Your task to perform on an android device: change your default location settings in chrome Image 0: 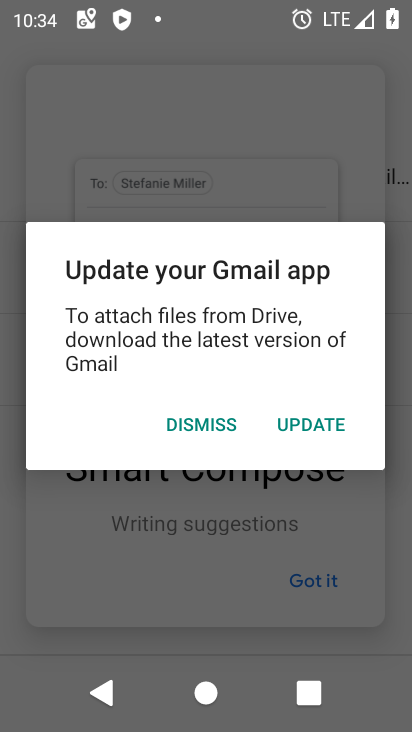
Step 0: press home button
Your task to perform on an android device: change your default location settings in chrome Image 1: 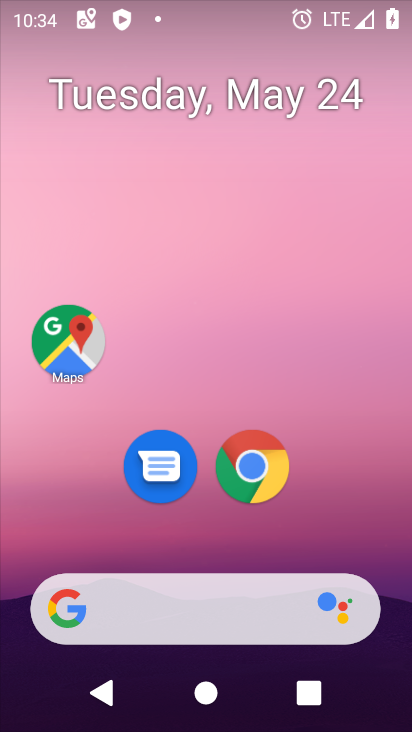
Step 1: drag from (391, 546) to (388, 242)
Your task to perform on an android device: change your default location settings in chrome Image 2: 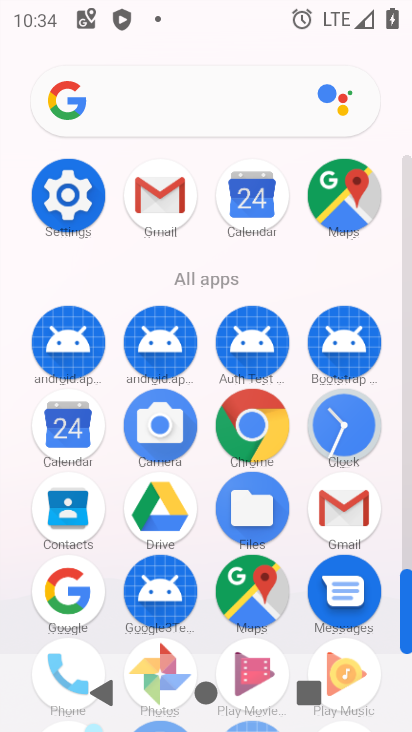
Step 2: click (267, 438)
Your task to perform on an android device: change your default location settings in chrome Image 3: 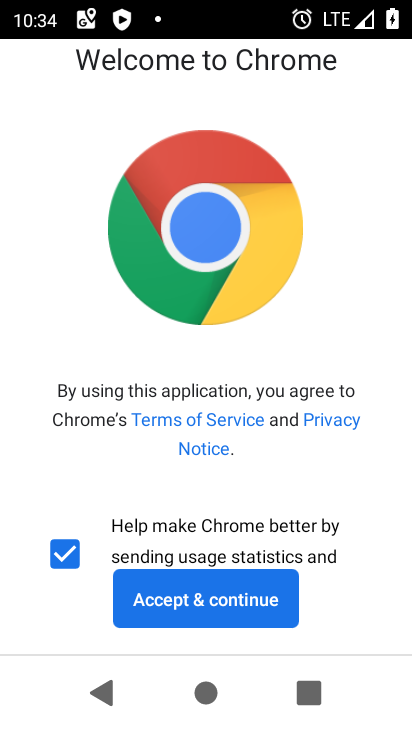
Step 3: click (223, 598)
Your task to perform on an android device: change your default location settings in chrome Image 4: 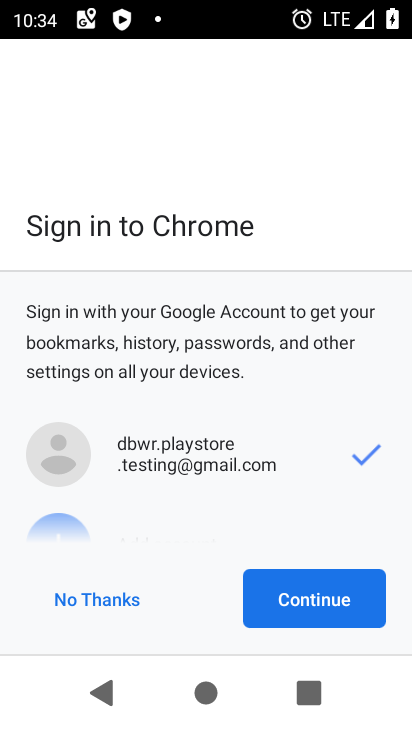
Step 4: click (277, 604)
Your task to perform on an android device: change your default location settings in chrome Image 5: 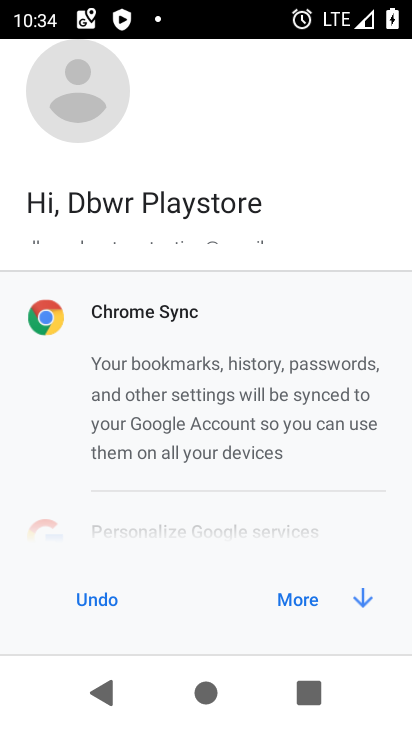
Step 5: click (301, 604)
Your task to perform on an android device: change your default location settings in chrome Image 6: 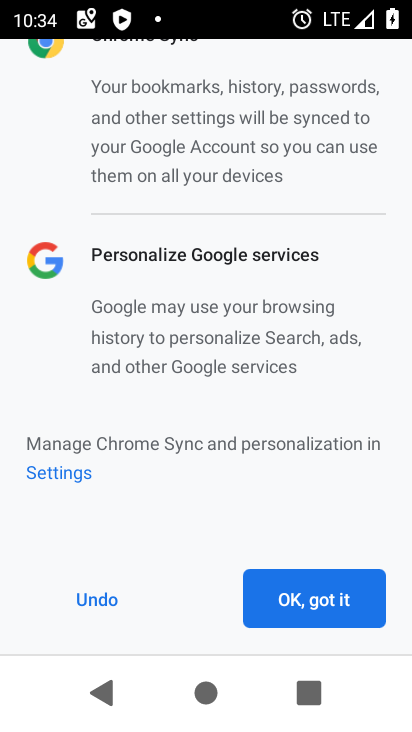
Step 6: click (301, 604)
Your task to perform on an android device: change your default location settings in chrome Image 7: 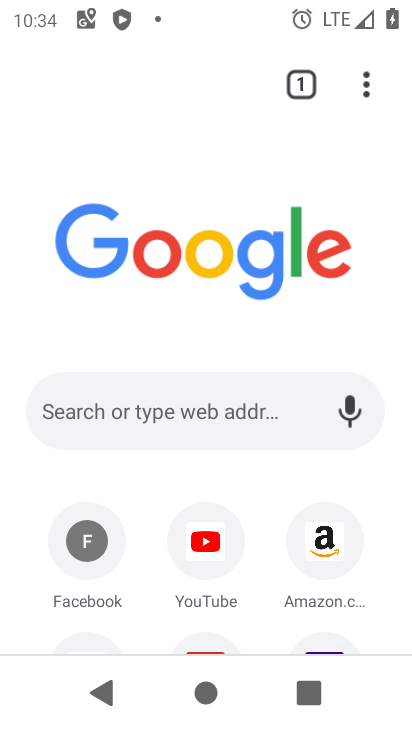
Step 7: click (365, 94)
Your task to perform on an android device: change your default location settings in chrome Image 8: 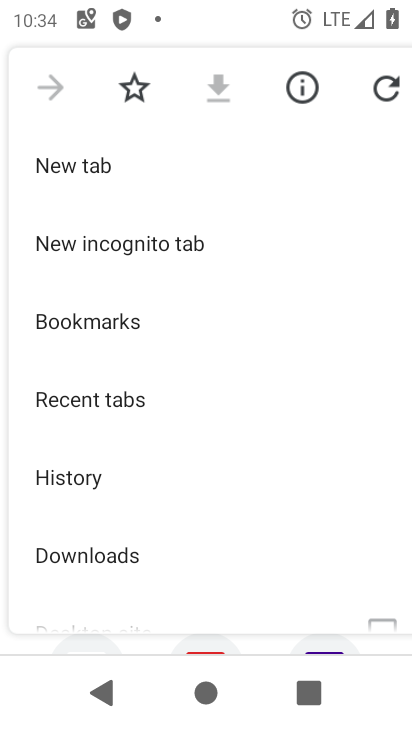
Step 8: drag from (275, 431) to (261, 367)
Your task to perform on an android device: change your default location settings in chrome Image 9: 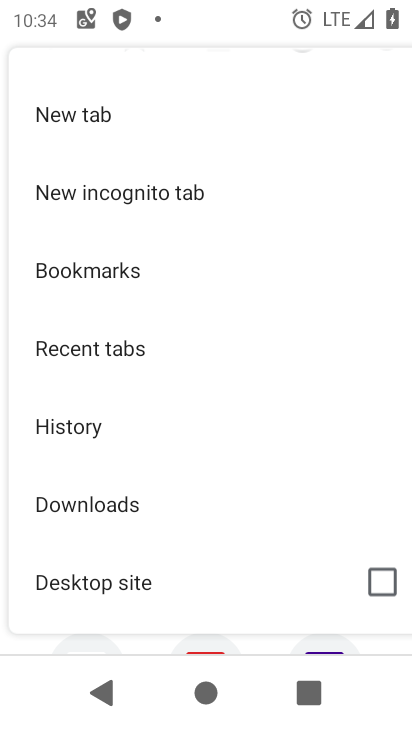
Step 9: drag from (287, 517) to (287, 435)
Your task to perform on an android device: change your default location settings in chrome Image 10: 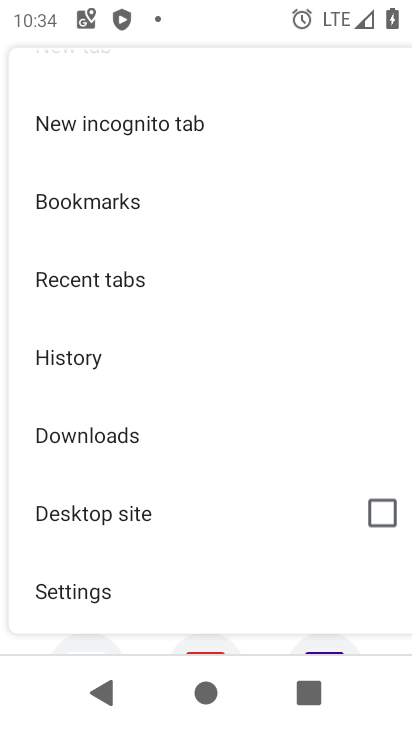
Step 10: drag from (270, 507) to (270, 430)
Your task to perform on an android device: change your default location settings in chrome Image 11: 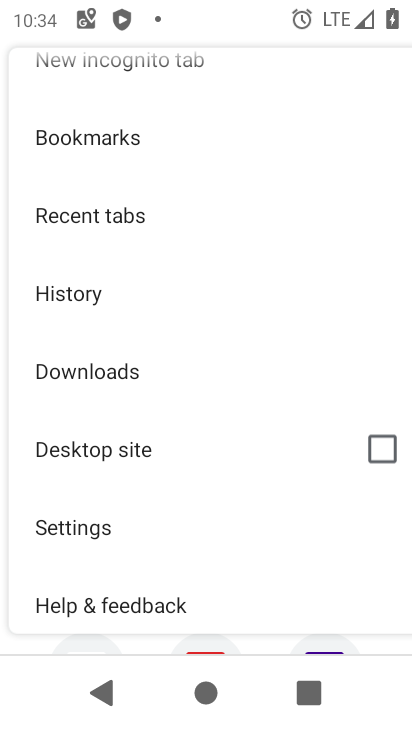
Step 11: drag from (253, 540) to (261, 409)
Your task to perform on an android device: change your default location settings in chrome Image 12: 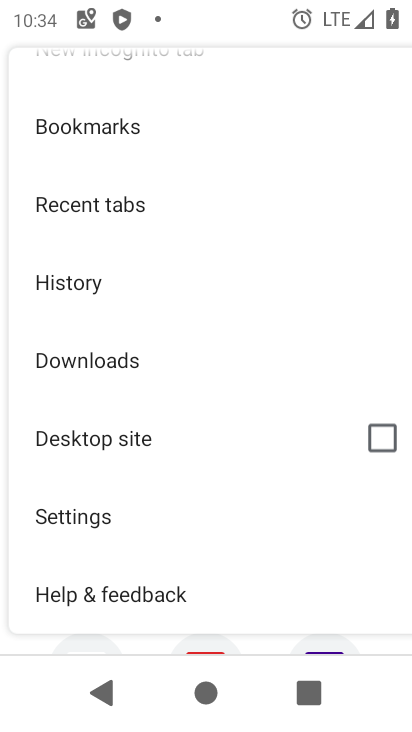
Step 12: click (131, 535)
Your task to perform on an android device: change your default location settings in chrome Image 13: 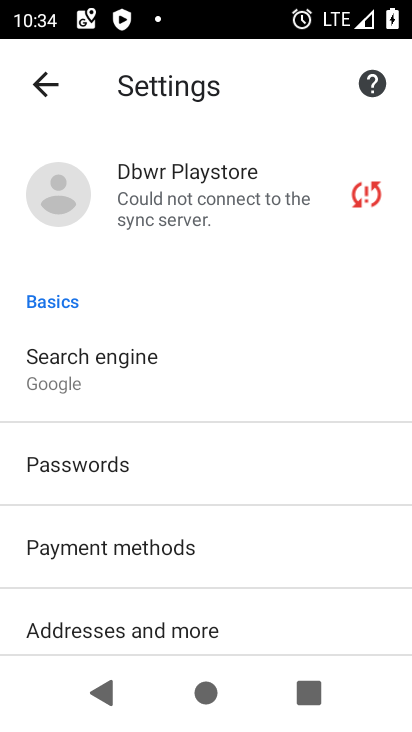
Step 13: drag from (330, 582) to (319, 498)
Your task to perform on an android device: change your default location settings in chrome Image 14: 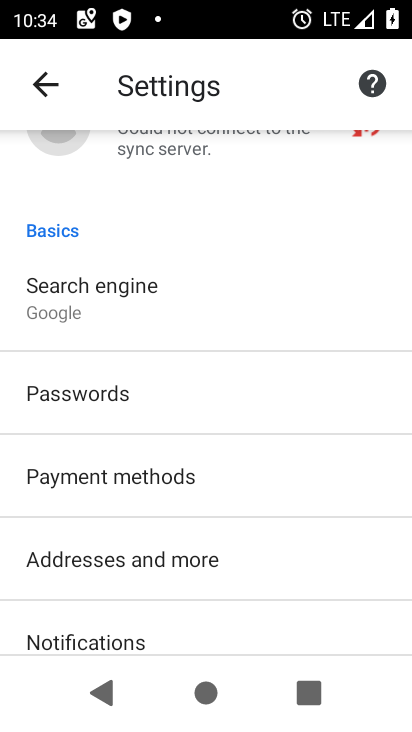
Step 14: drag from (312, 584) to (324, 503)
Your task to perform on an android device: change your default location settings in chrome Image 15: 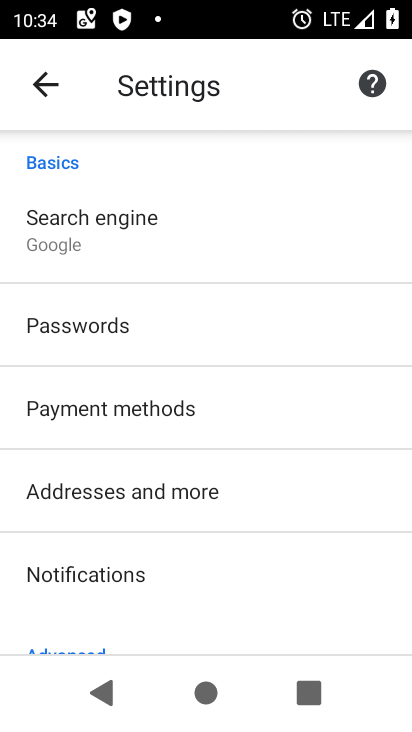
Step 15: drag from (317, 556) to (317, 469)
Your task to perform on an android device: change your default location settings in chrome Image 16: 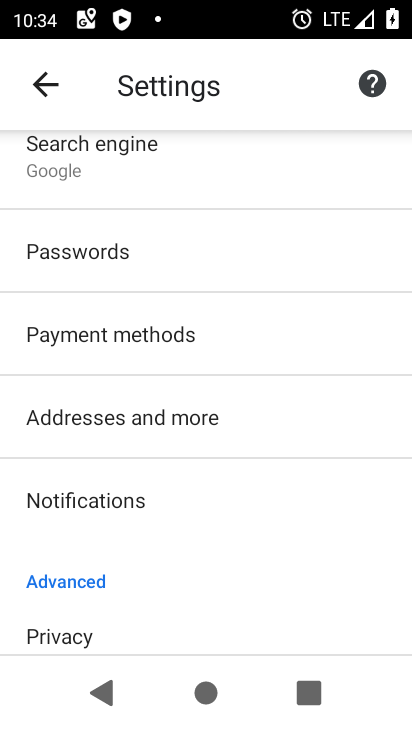
Step 16: drag from (309, 558) to (290, 470)
Your task to perform on an android device: change your default location settings in chrome Image 17: 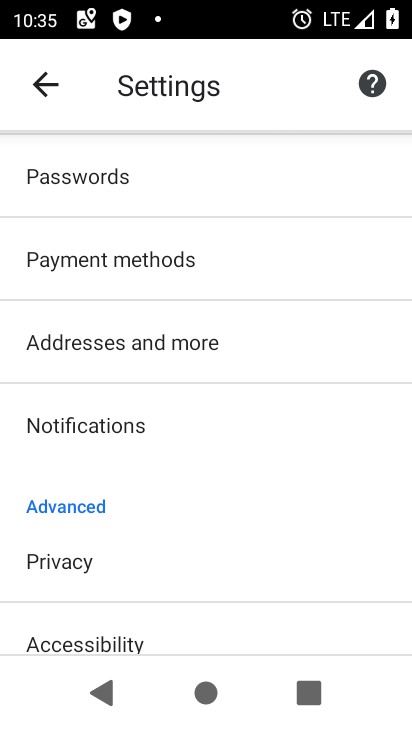
Step 17: drag from (276, 559) to (288, 460)
Your task to perform on an android device: change your default location settings in chrome Image 18: 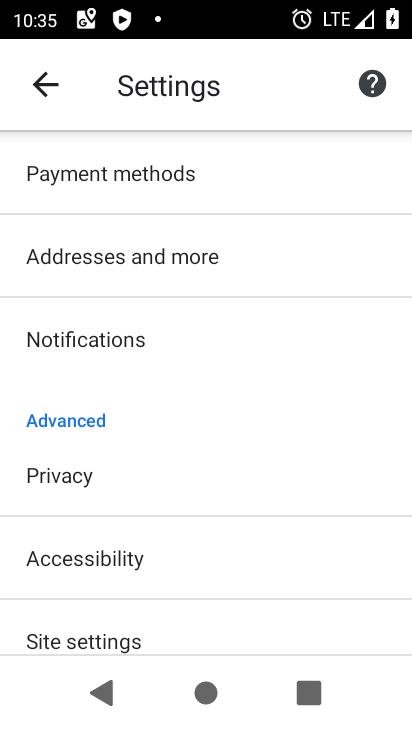
Step 18: drag from (283, 559) to (302, 450)
Your task to perform on an android device: change your default location settings in chrome Image 19: 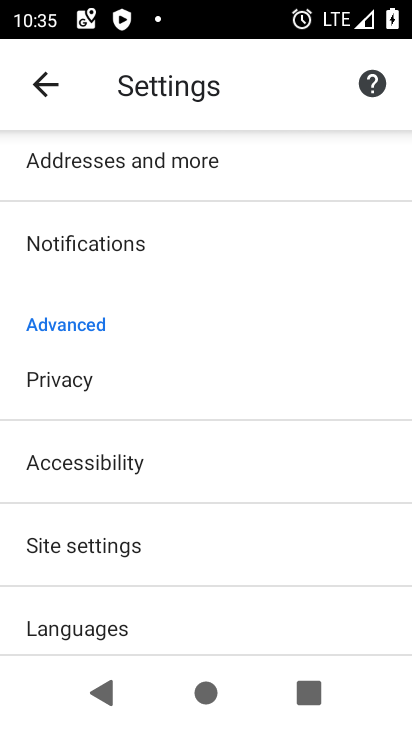
Step 19: click (297, 541)
Your task to perform on an android device: change your default location settings in chrome Image 20: 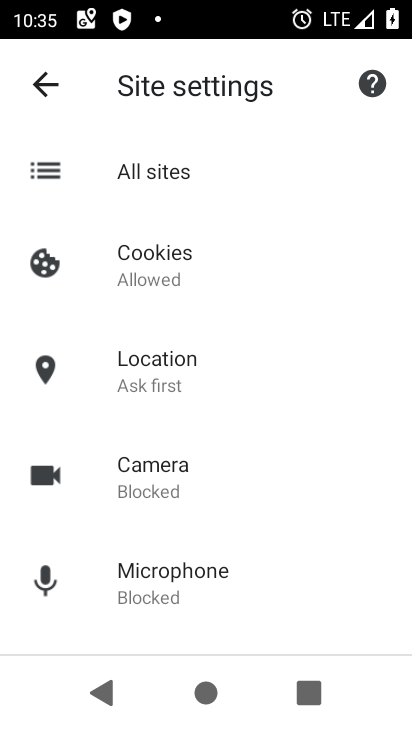
Step 20: click (246, 383)
Your task to perform on an android device: change your default location settings in chrome Image 21: 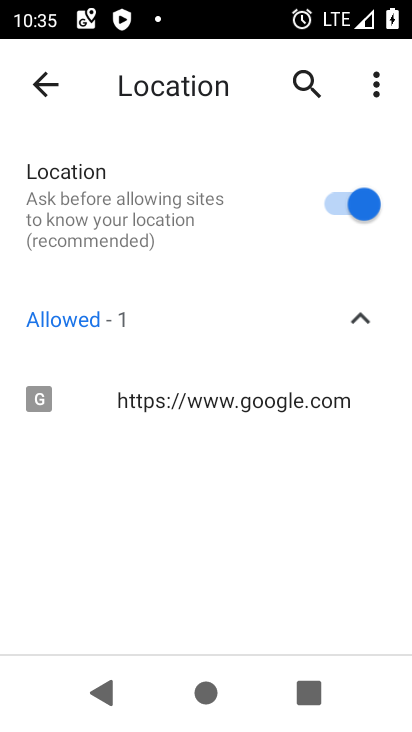
Step 21: click (336, 204)
Your task to perform on an android device: change your default location settings in chrome Image 22: 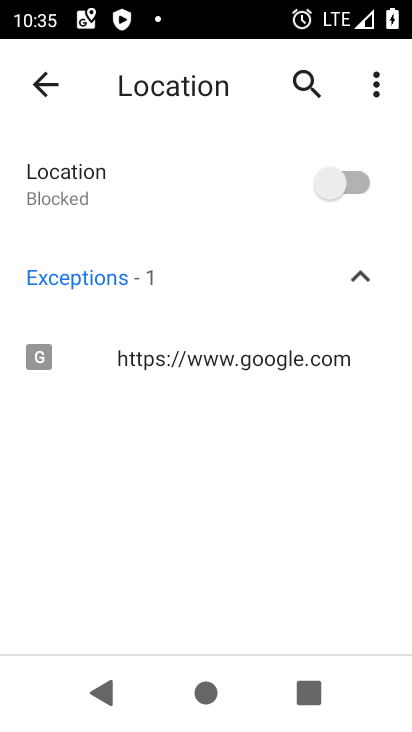
Step 22: task complete